Your task to perform on an android device: Open Amazon Image 0: 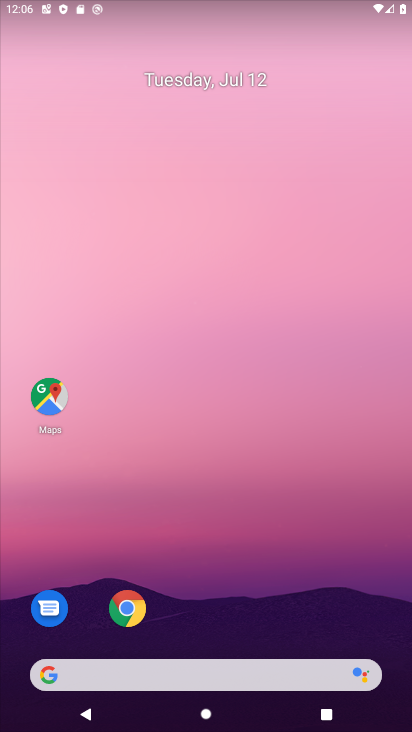
Step 0: click (138, 611)
Your task to perform on an android device: Open Amazon Image 1: 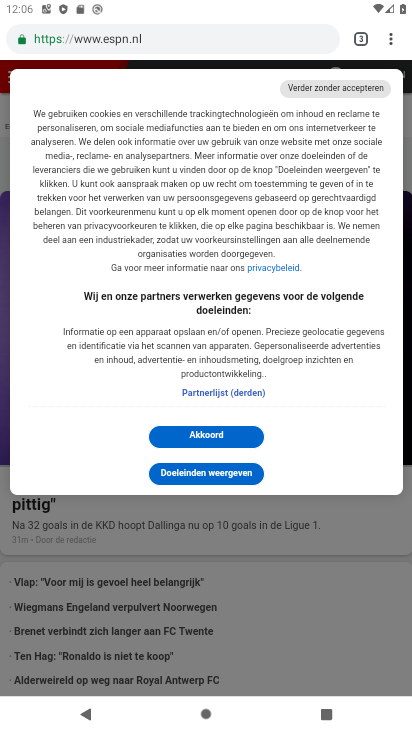
Step 1: click (365, 36)
Your task to perform on an android device: Open Amazon Image 2: 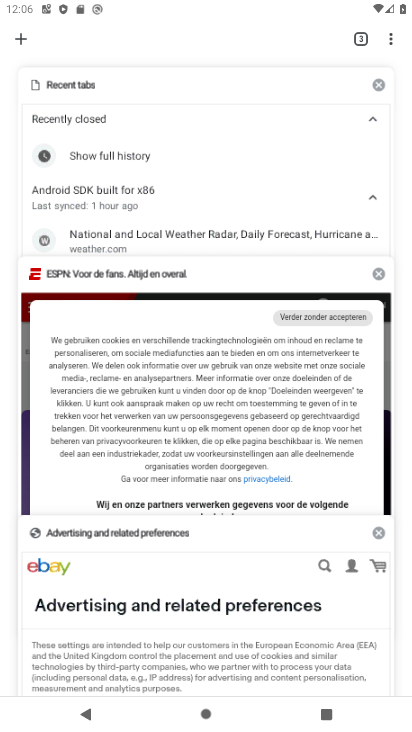
Step 2: click (161, 122)
Your task to perform on an android device: Open Amazon Image 3: 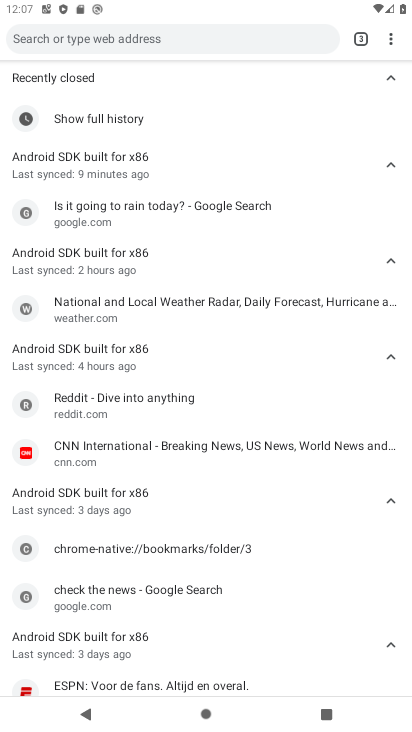
Step 3: click (364, 36)
Your task to perform on an android device: Open Amazon Image 4: 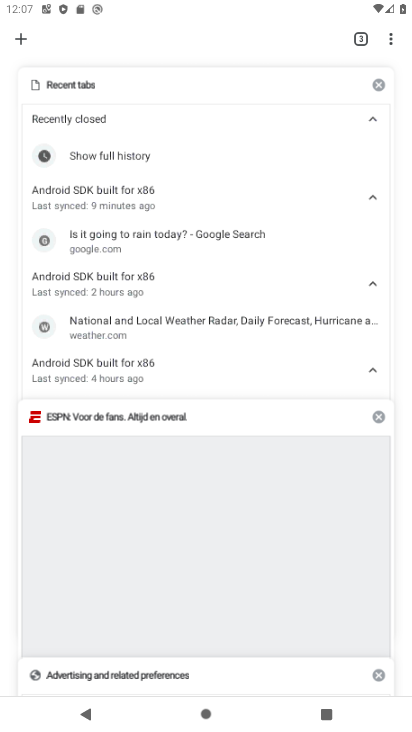
Step 4: click (20, 42)
Your task to perform on an android device: Open Amazon Image 5: 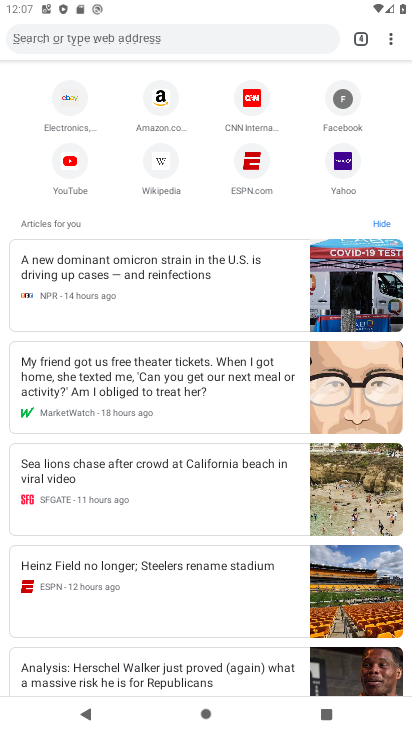
Step 5: click (153, 100)
Your task to perform on an android device: Open Amazon Image 6: 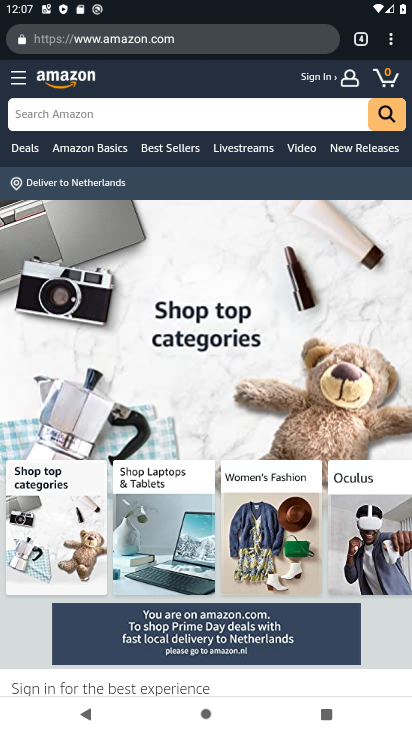
Step 6: task complete